Your task to perform on an android device: change alarm snooze length Image 0: 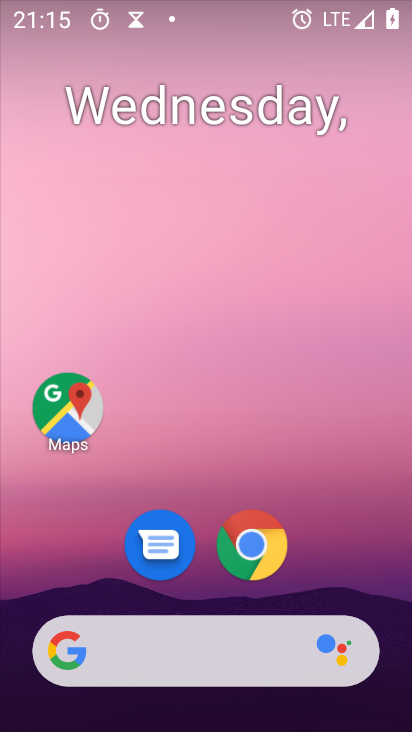
Step 0: press home button
Your task to perform on an android device: change alarm snooze length Image 1: 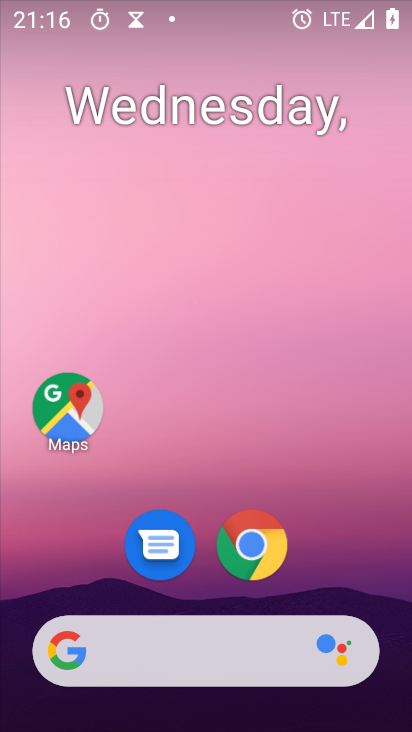
Step 1: drag from (177, 660) to (354, 95)
Your task to perform on an android device: change alarm snooze length Image 2: 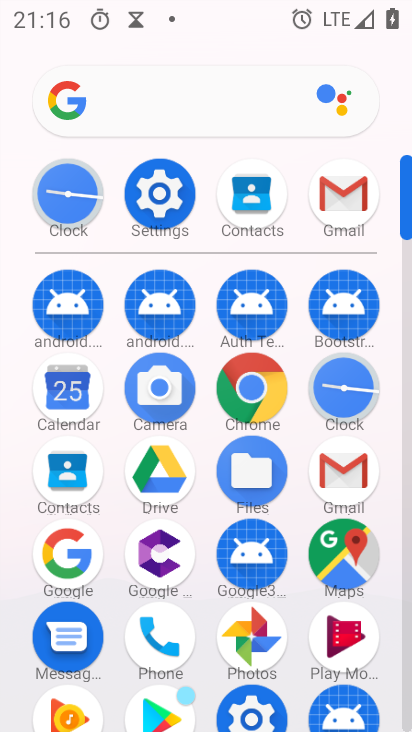
Step 2: click (350, 395)
Your task to perform on an android device: change alarm snooze length Image 3: 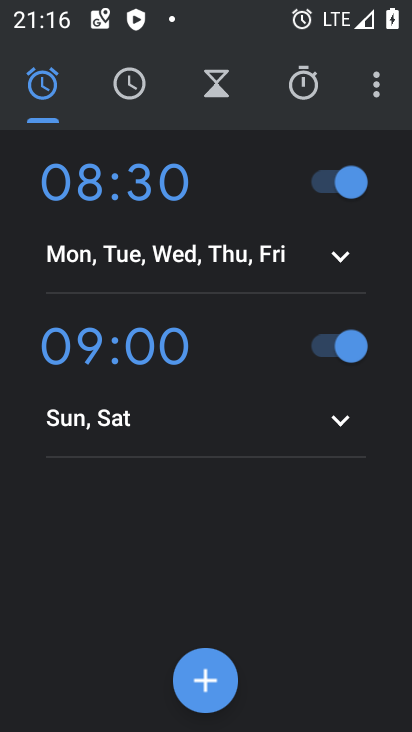
Step 3: click (375, 96)
Your task to perform on an android device: change alarm snooze length Image 4: 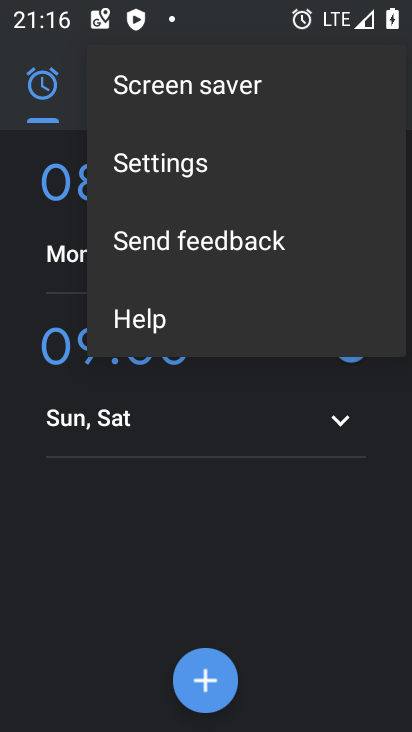
Step 4: click (197, 168)
Your task to perform on an android device: change alarm snooze length Image 5: 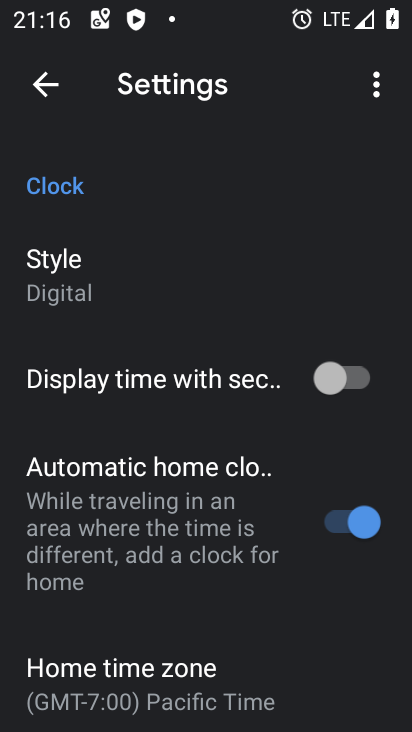
Step 5: drag from (210, 591) to (385, 134)
Your task to perform on an android device: change alarm snooze length Image 6: 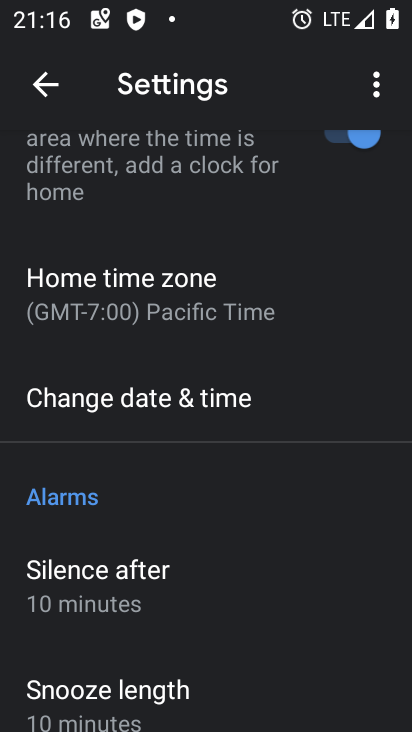
Step 6: drag from (214, 574) to (312, 297)
Your task to perform on an android device: change alarm snooze length Image 7: 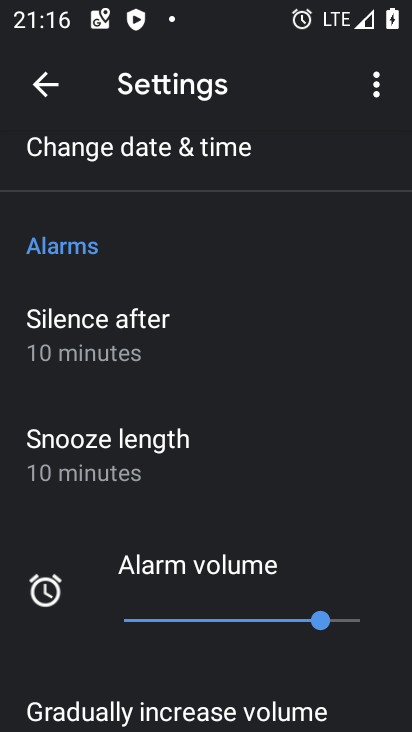
Step 7: click (146, 450)
Your task to perform on an android device: change alarm snooze length Image 8: 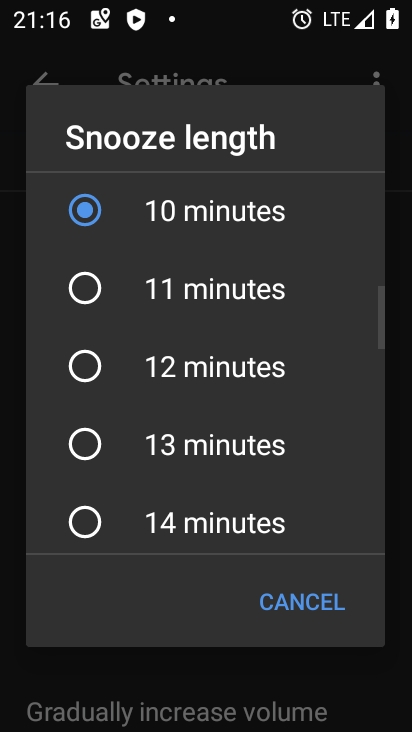
Step 8: click (89, 523)
Your task to perform on an android device: change alarm snooze length Image 9: 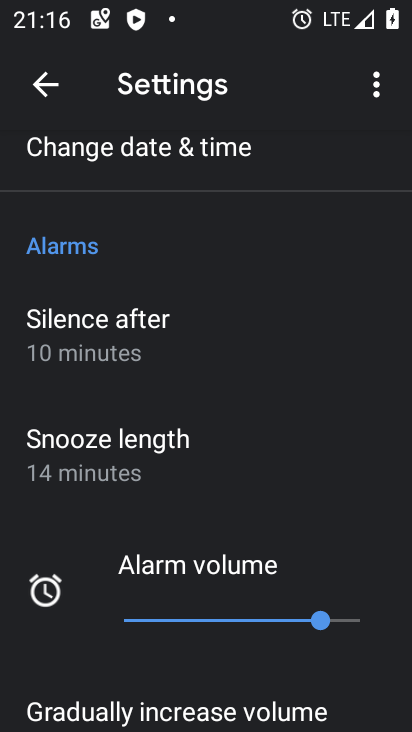
Step 9: task complete